Your task to perform on an android device: Show me recent news Image 0: 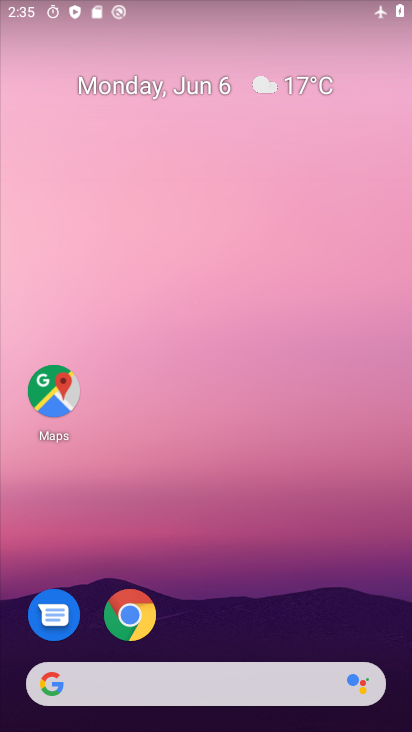
Step 0: drag from (199, 648) to (248, 248)
Your task to perform on an android device: Show me recent news Image 1: 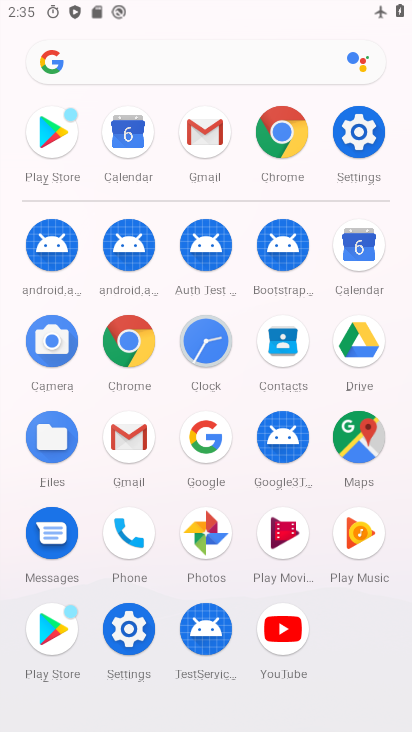
Step 1: click (178, 52)
Your task to perform on an android device: Show me recent news Image 2: 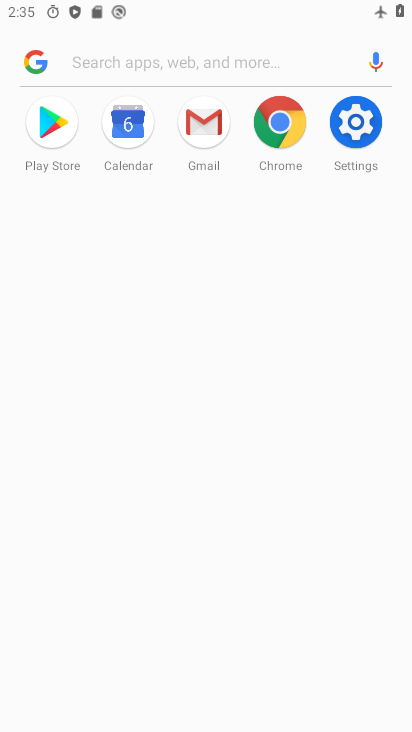
Step 2: type "recent news"
Your task to perform on an android device: Show me recent news Image 3: 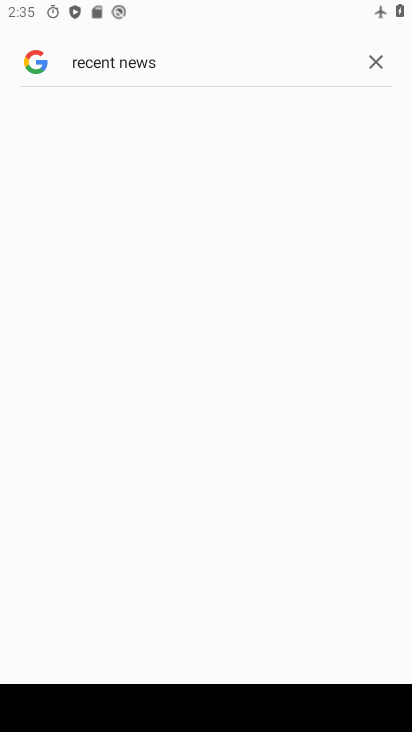
Step 3: task complete